Your task to perform on an android device: toggle notification dots Image 0: 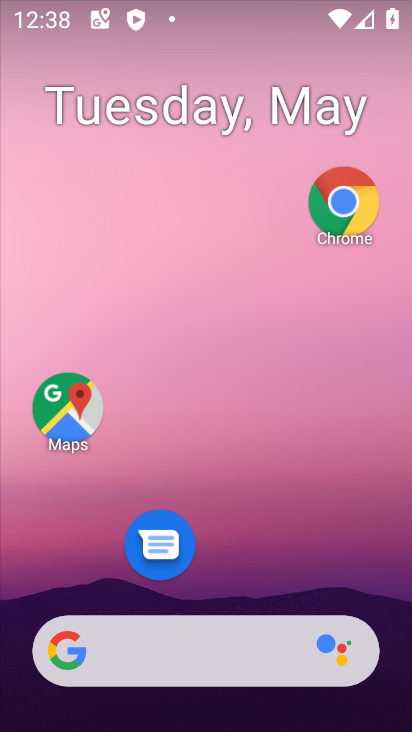
Step 0: drag from (238, 607) to (251, 72)
Your task to perform on an android device: toggle notification dots Image 1: 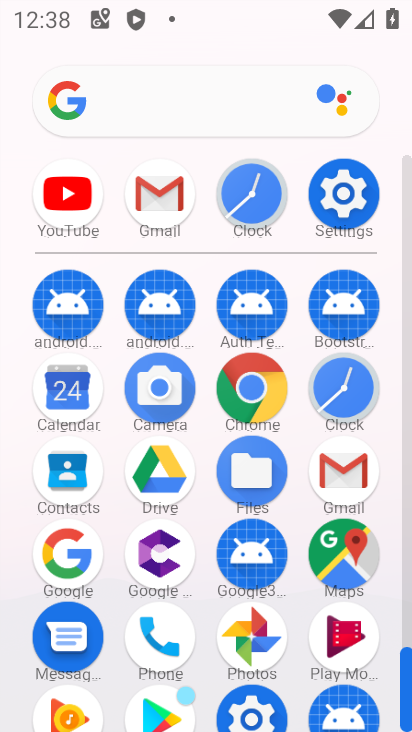
Step 1: click (311, 222)
Your task to perform on an android device: toggle notification dots Image 2: 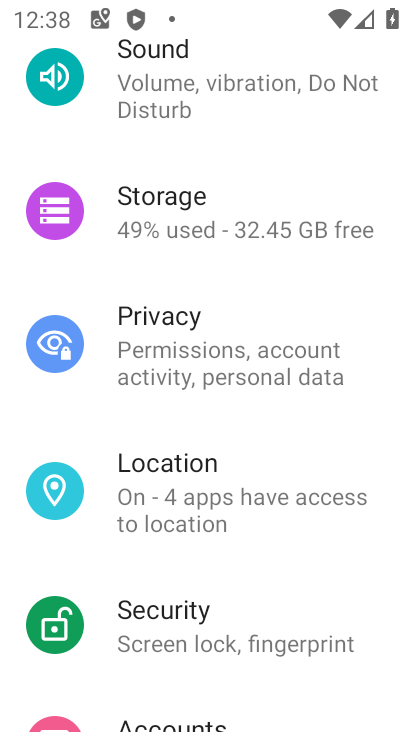
Step 2: drag from (206, 168) to (205, 686)
Your task to perform on an android device: toggle notification dots Image 3: 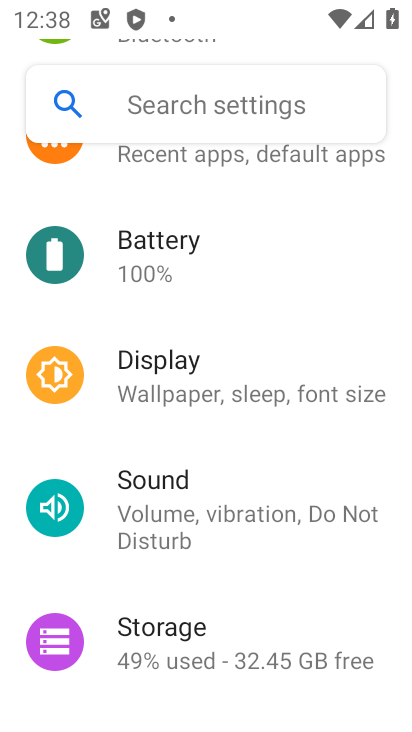
Step 3: drag from (319, 261) to (252, 696)
Your task to perform on an android device: toggle notification dots Image 4: 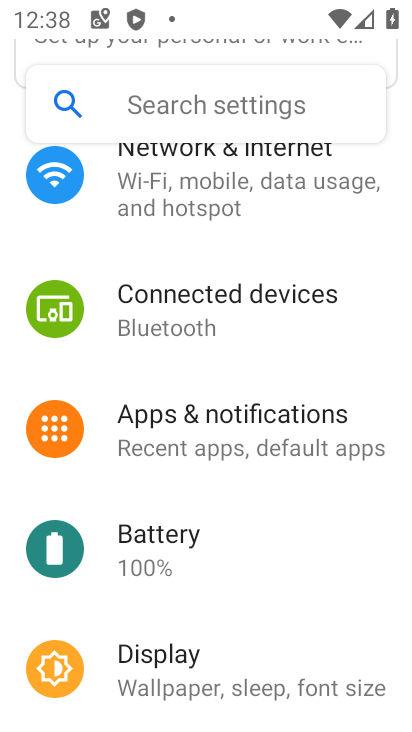
Step 4: click (190, 443)
Your task to perform on an android device: toggle notification dots Image 5: 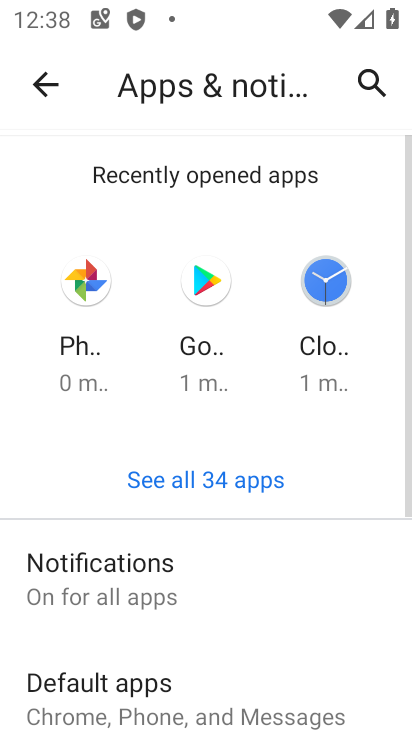
Step 5: drag from (182, 657) to (225, 181)
Your task to perform on an android device: toggle notification dots Image 6: 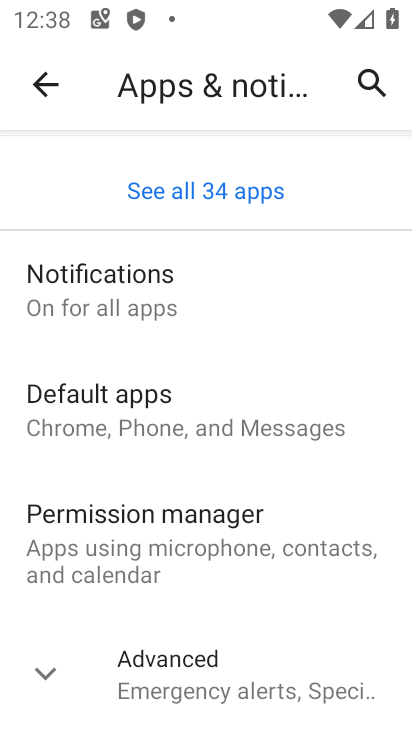
Step 6: click (127, 331)
Your task to perform on an android device: toggle notification dots Image 7: 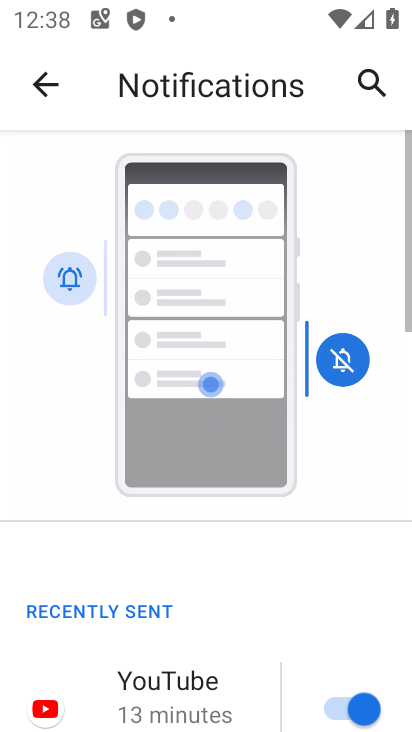
Step 7: drag from (165, 646) to (271, 37)
Your task to perform on an android device: toggle notification dots Image 8: 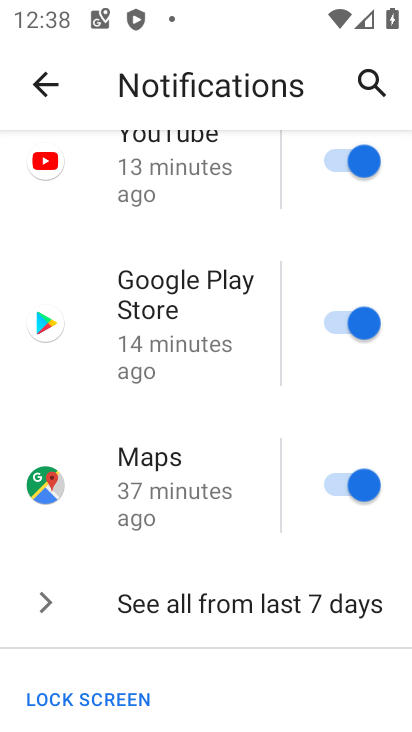
Step 8: drag from (135, 666) to (130, 187)
Your task to perform on an android device: toggle notification dots Image 9: 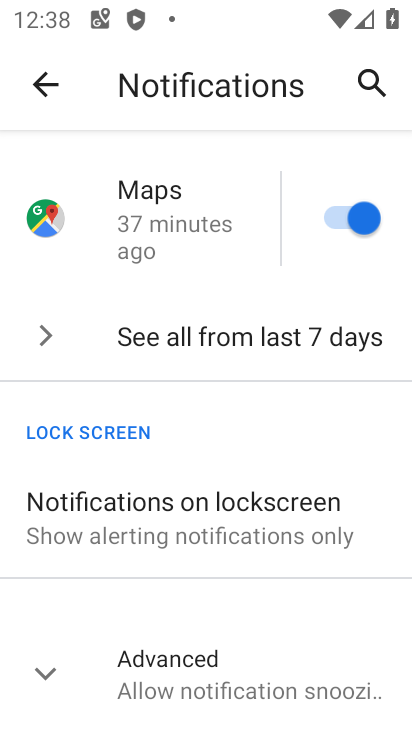
Step 9: click (144, 715)
Your task to perform on an android device: toggle notification dots Image 10: 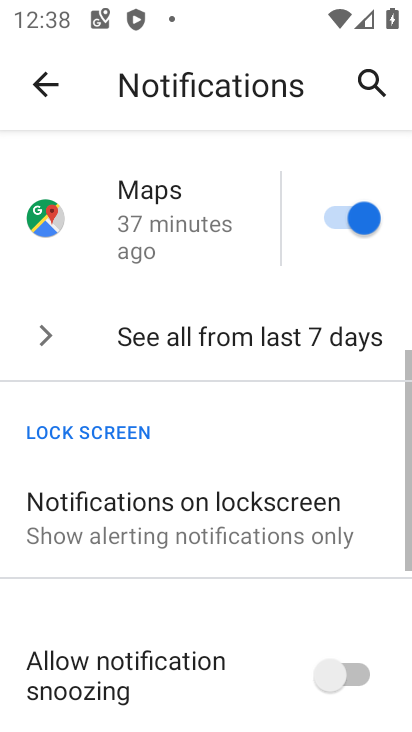
Step 10: drag from (144, 715) to (240, 97)
Your task to perform on an android device: toggle notification dots Image 11: 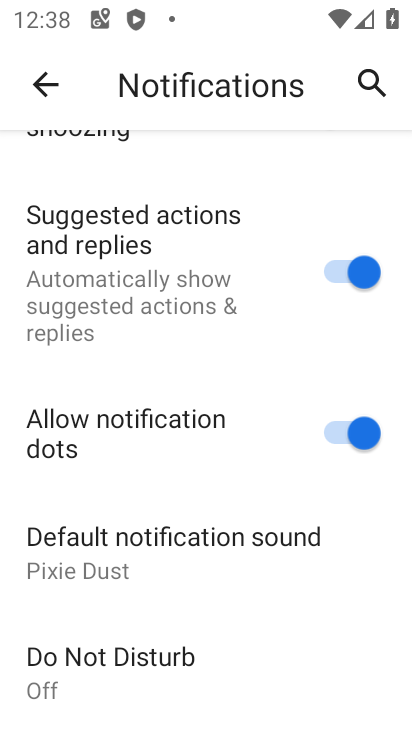
Step 11: click (352, 437)
Your task to perform on an android device: toggle notification dots Image 12: 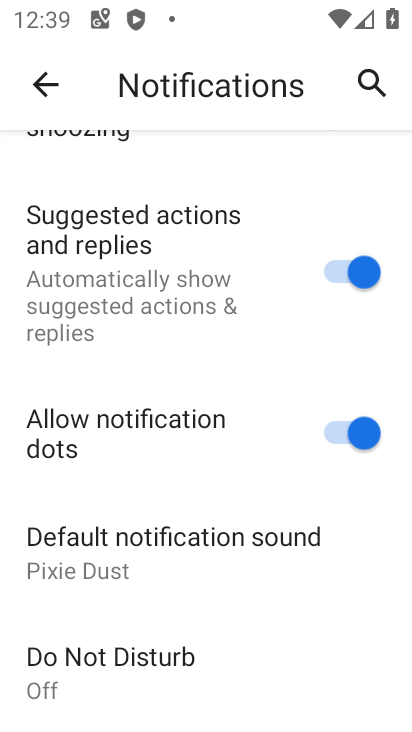
Step 12: click (352, 437)
Your task to perform on an android device: toggle notification dots Image 13: 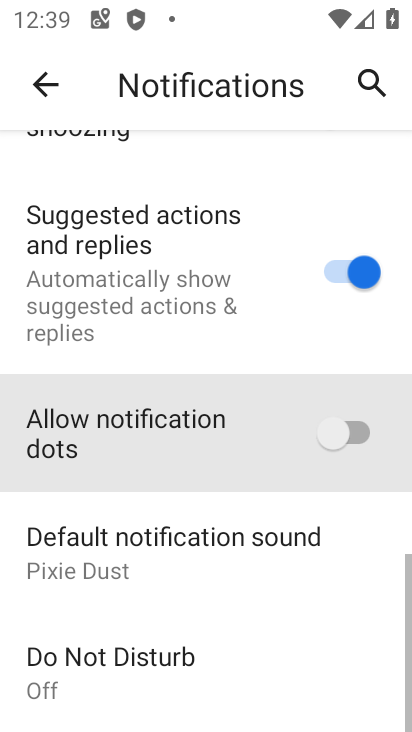
Step 13: click (352, 437)
Your task to perform on an android device: toggle notification dots Image 14: 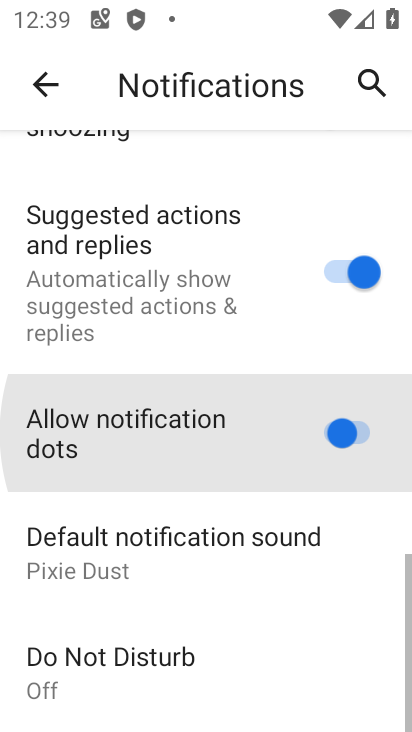
Step 14: click (352, 437)
Your task to perform on an android device: toggle notification dots Image 15: 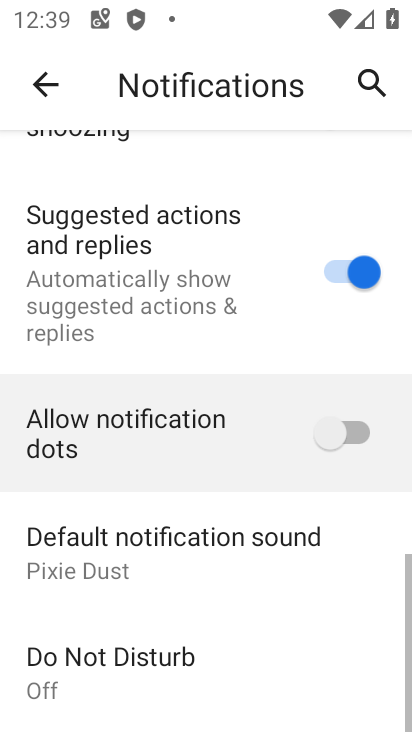
Step 15: click (352, 437)
Your task to perform on an android device: toggle notification dots Image 16: 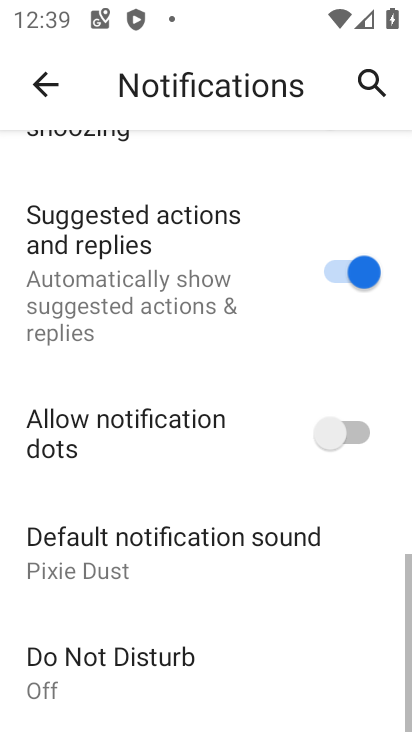
Step 16: click (352, 437)
Your task to perform on an android device: toggle notification dots Image 17: 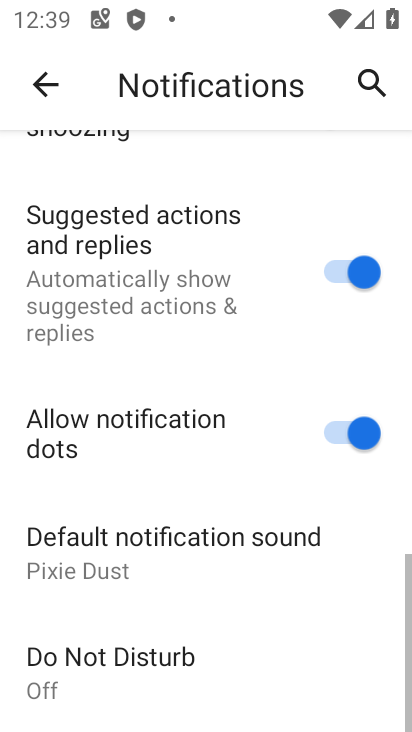
Step 17: task complete